Your task to perform on an android device: uninstall "Reddit" Image 0: 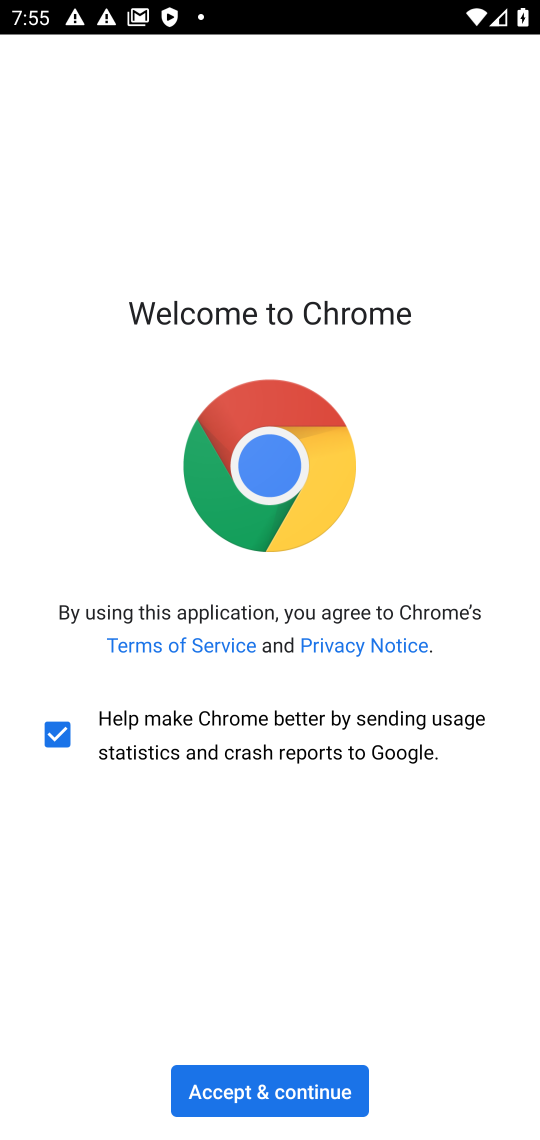
Step 0: press home button
Your task to perform on an android device: uninstall "Reddit" Image 1: 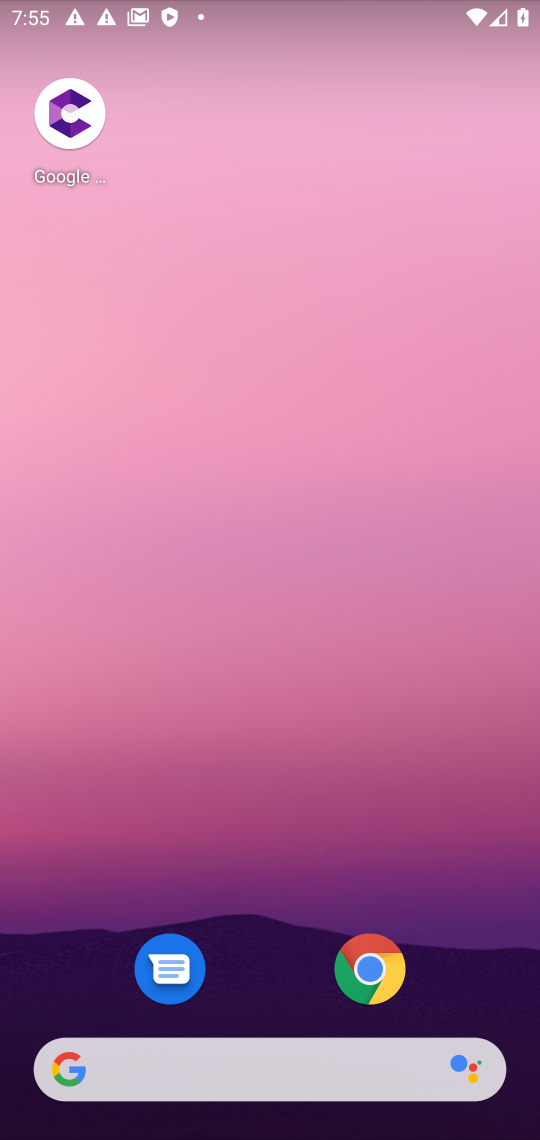
Step 1: drag from (246, 960) to (248, 208)
Your task to perform on an android device: uninstall "Reddit" Image 2: 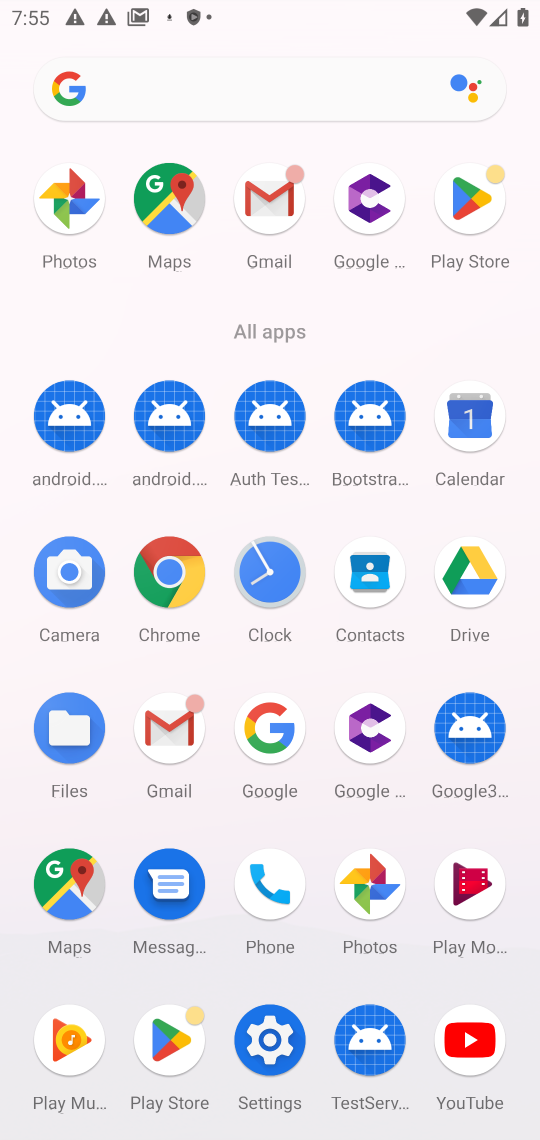
Step 2: click (474, 208)
Your task to perform on an android device: uninstall "Reddit" Image 3: 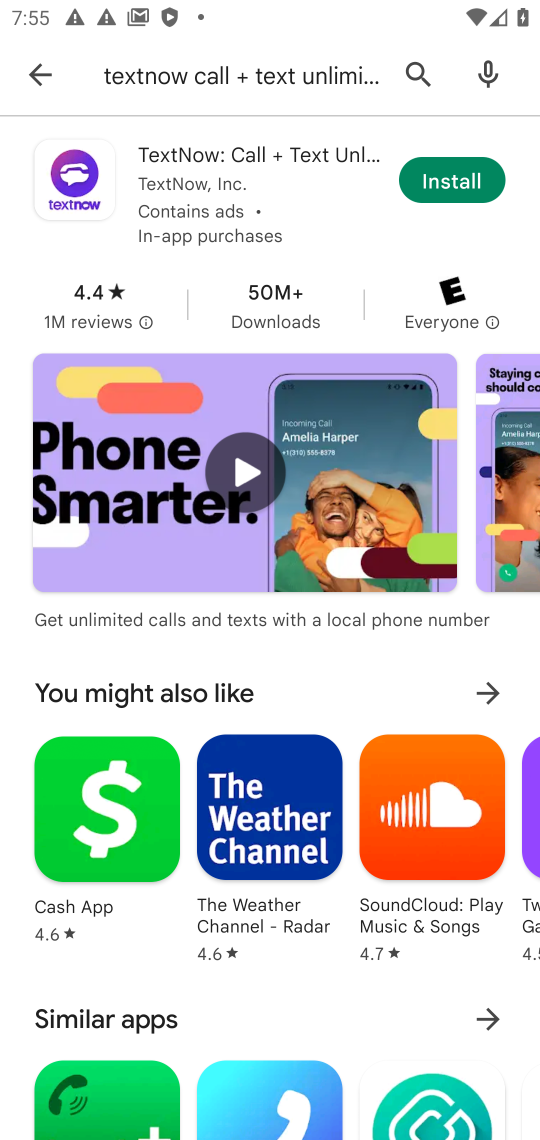
Step 3: click (40, 65)
Your task to perform on an android device: uninstall "Reddit" Image 4: 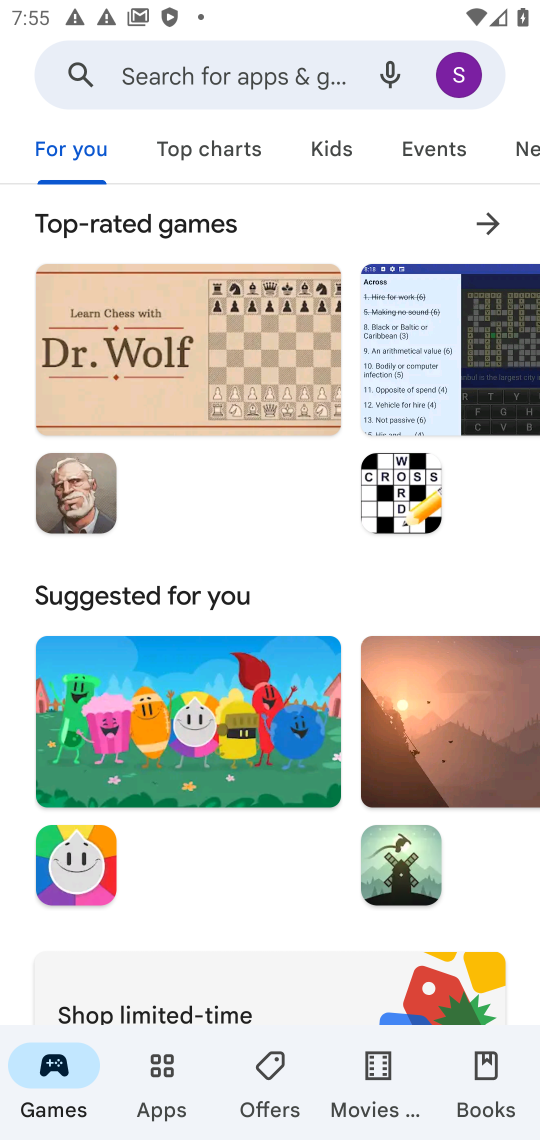
Step 4: click (306, 74)
Your task to perform on an android device: uninstall "Reddit" Image 5: 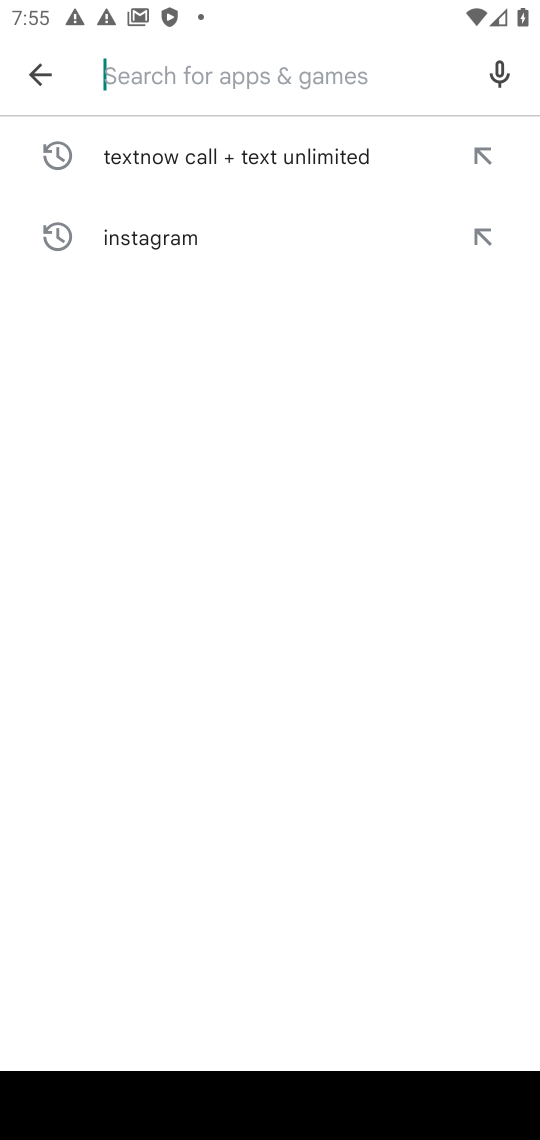
Step 5: type "Reddit"
Your task to perform on an android device: uninstall "Reddit" Image 6: 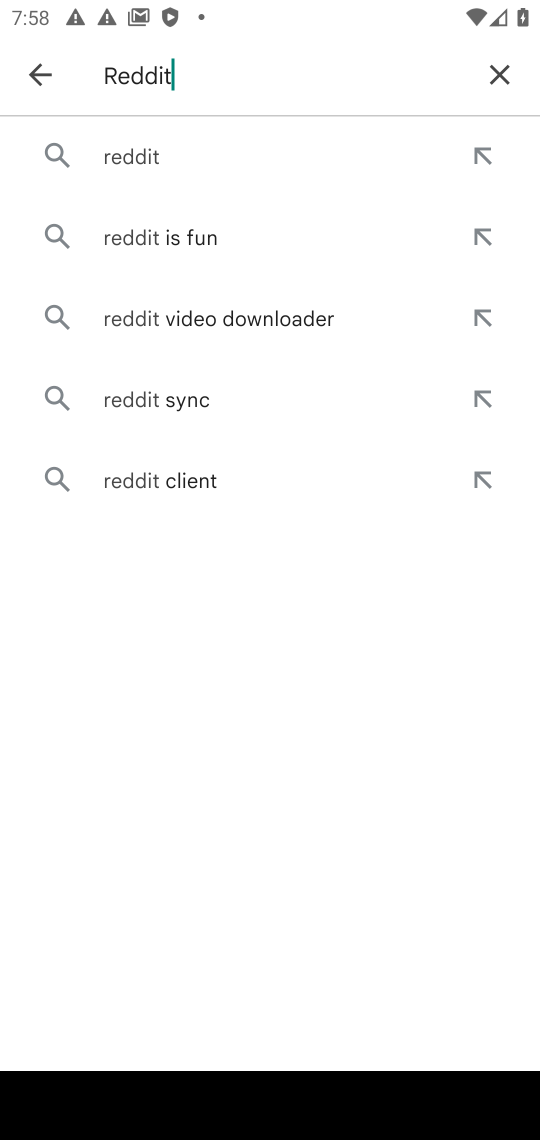
Step 6: click (135, 146)
Your task to perform on an android device: uninstall "Reddit" Image 7: 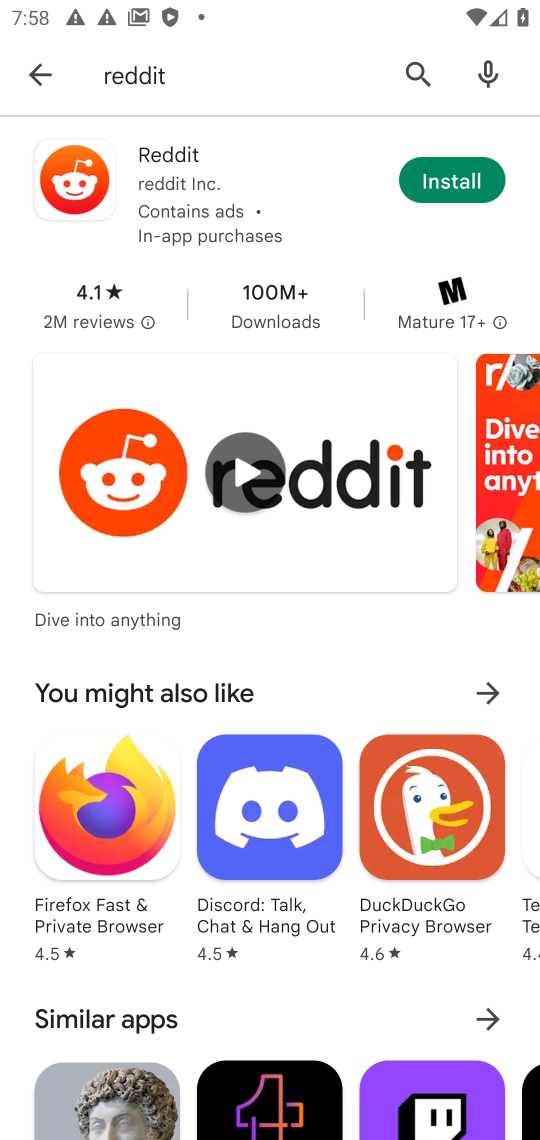
Step 7: task complete